Your task to perform on an android device: find photos in the google photos app Image 0: 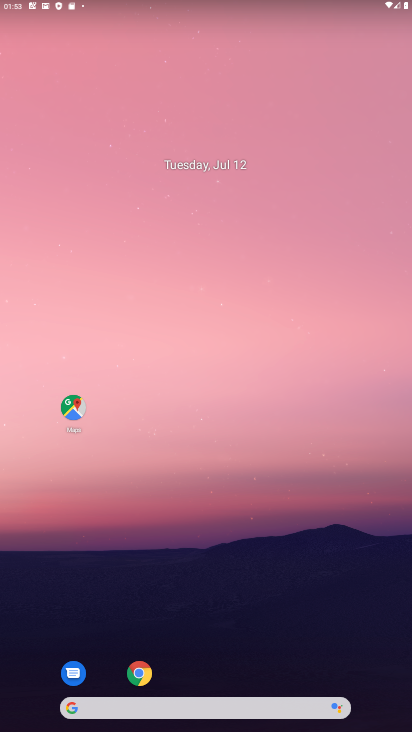
Step 0: press home button
Your task to perform on an android device: find photos in the google photos app Image 1: 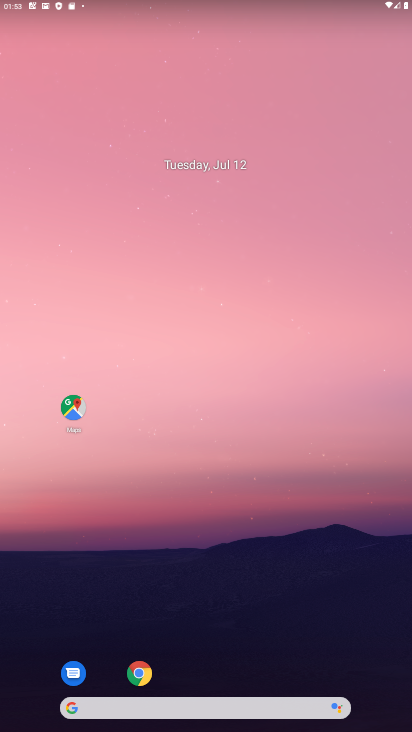
Step 1: drag from (245, 655) to (239, 120)
Your task to perform on an android device: find photos in the google photos app Image 2: 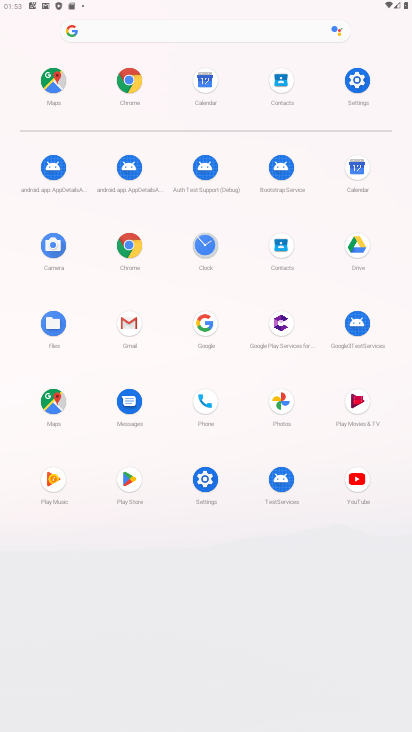
Step 2: click (286, 406)
Your task to perform on an android device: find photos in the google photos app Image 3: 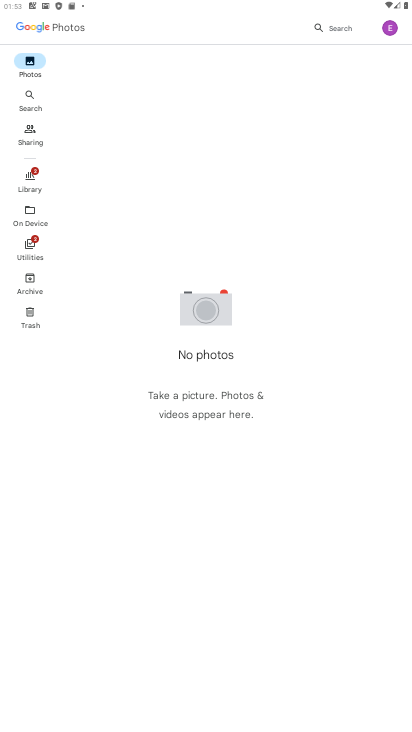
Step 3: task complete